Your task to perform on an android device: open app "Chime – Mobile Banking" (install if not already installed) Image 0: 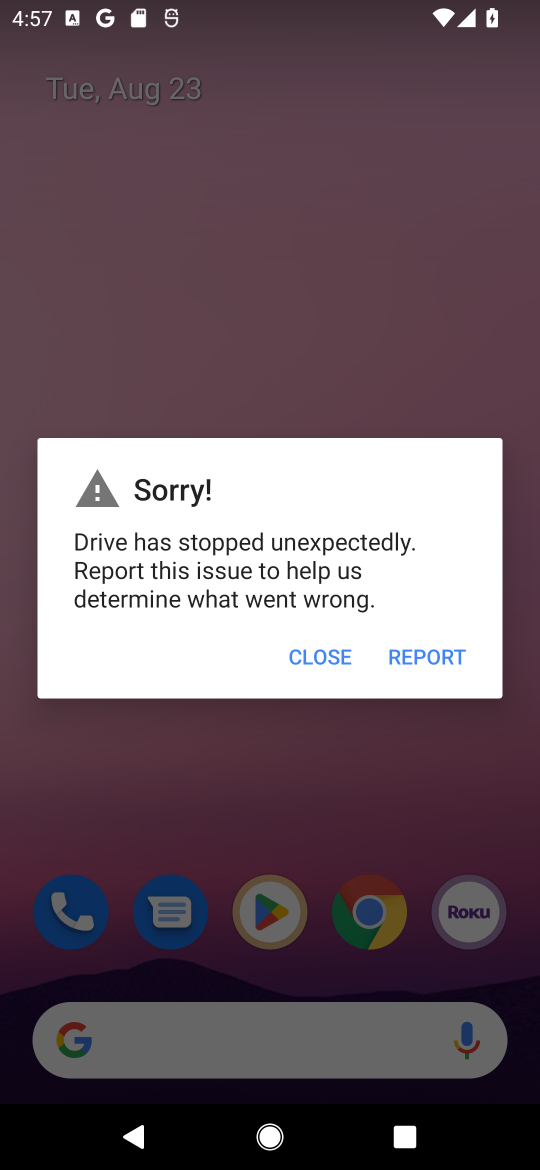
Step 0: press home button
Your task to perform on an android device: open app "Chime – Mobile Banking" (install if not already installed) Image 1: 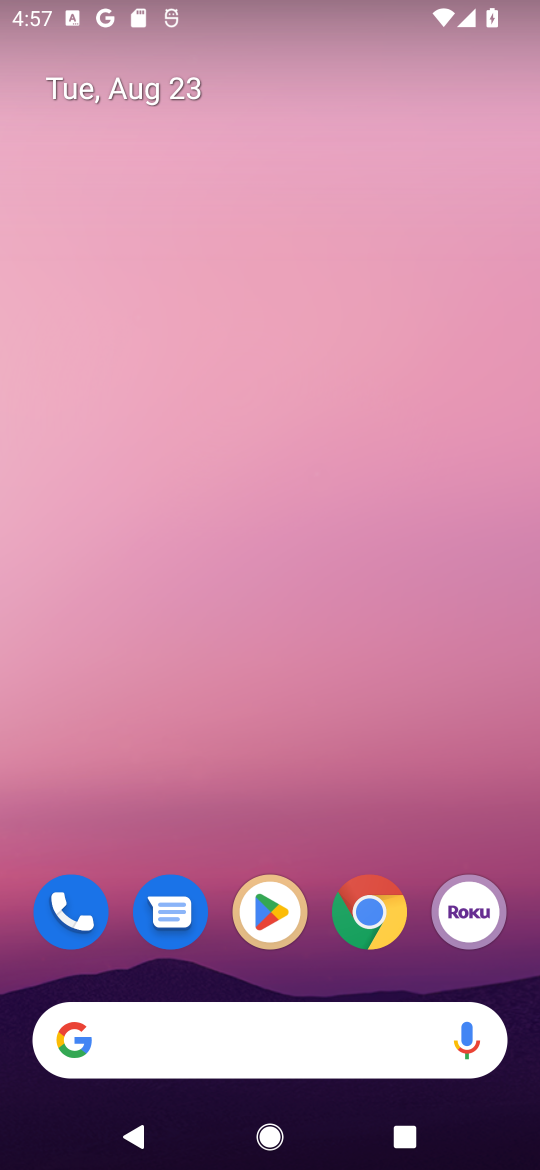
Step 1: drag from (278, 825) to (281, 126)
Your task to perform on an android device: open app "Chime – Mobile Banking" (install if not already installed) Image 2: 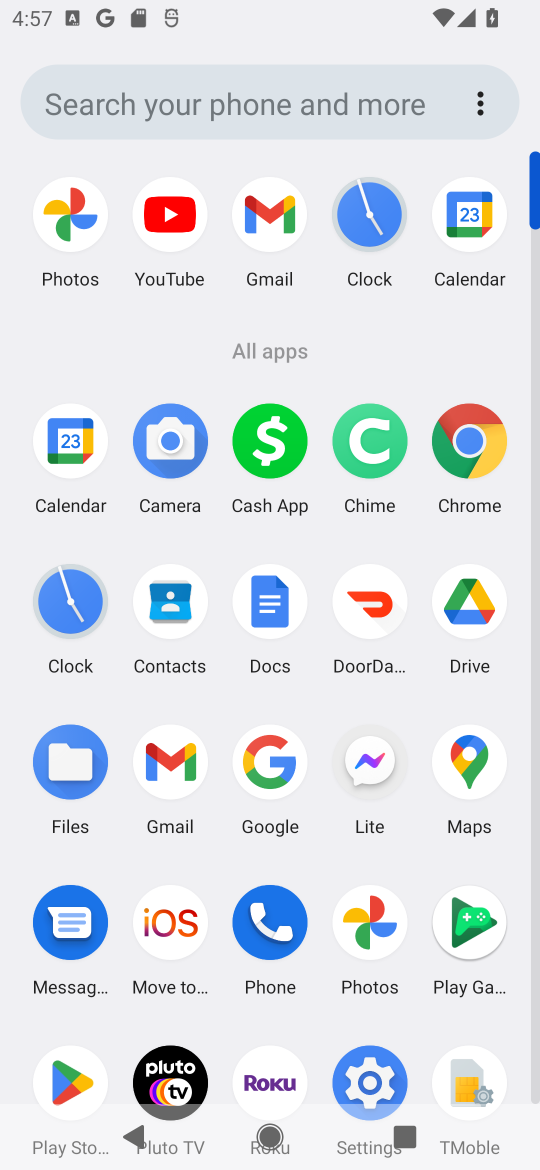
Step 2: click (75, 1071)
Your task to perform on an android device: open app "Chime – Mobile Banking" (install if not already installed) Image 3: 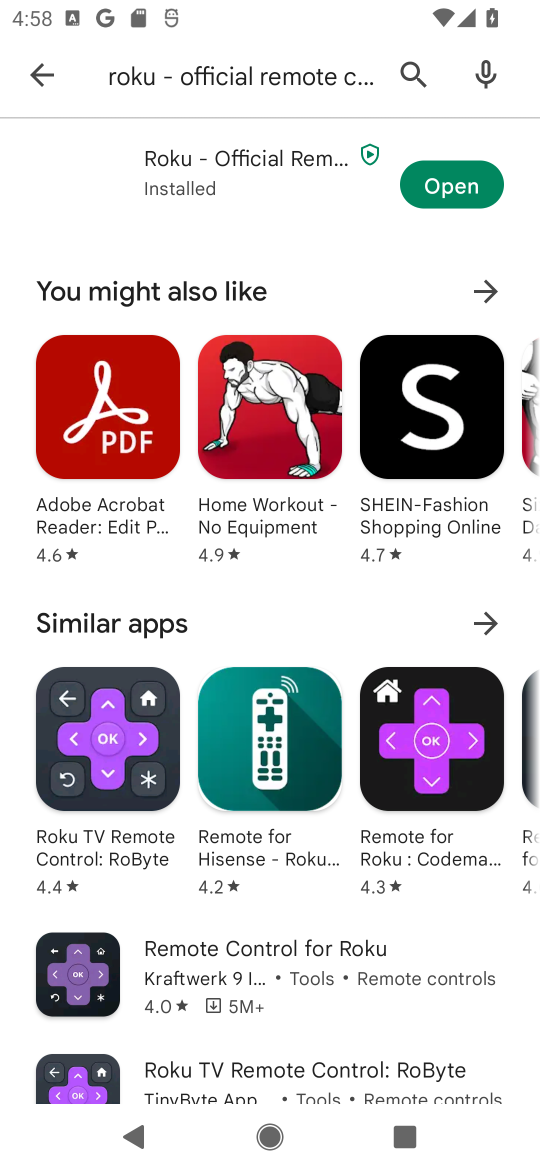
Step 3: click (26, 64)
Your task to perform on an android device: open app "Chime – Mobile Banking" (install if not already installed) Image 4: 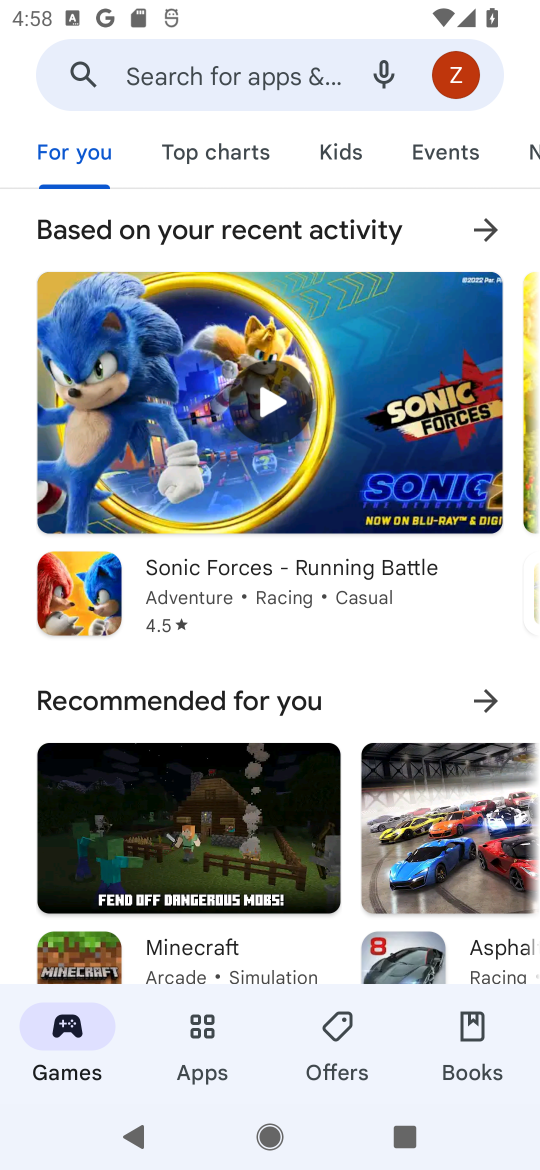
Step 4: click (198, 72)
Your task to perform on an android device: open app "Chime – Mobile Banking" (install if not already installed) Image 5: 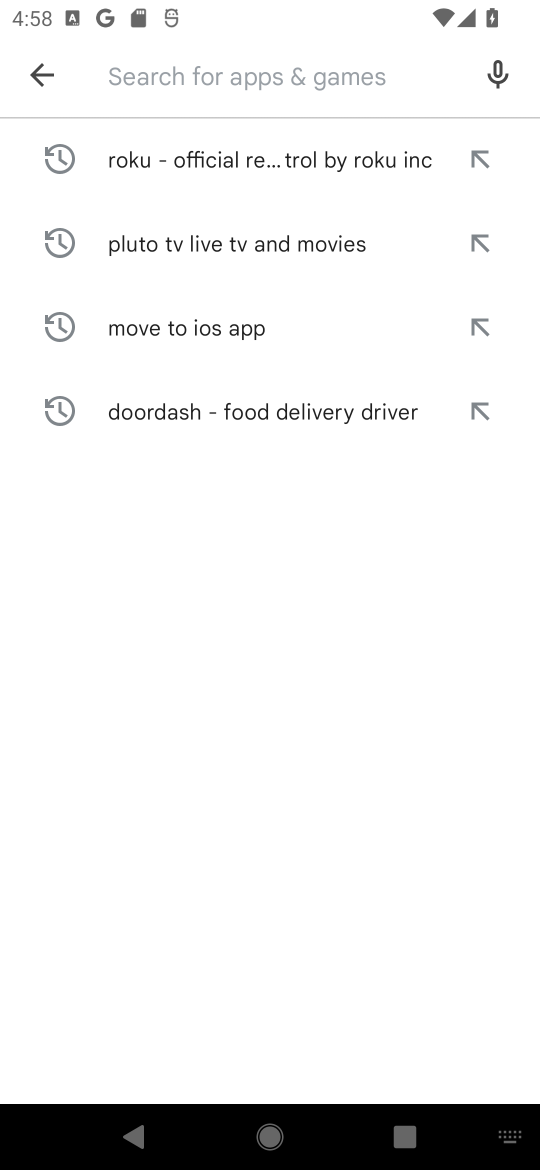
Step 5: type "Chime – Mobile Banking "
Your task to perform on an android device: open app "Chime – Mobile Banking" (install if not already installed) Image 6: 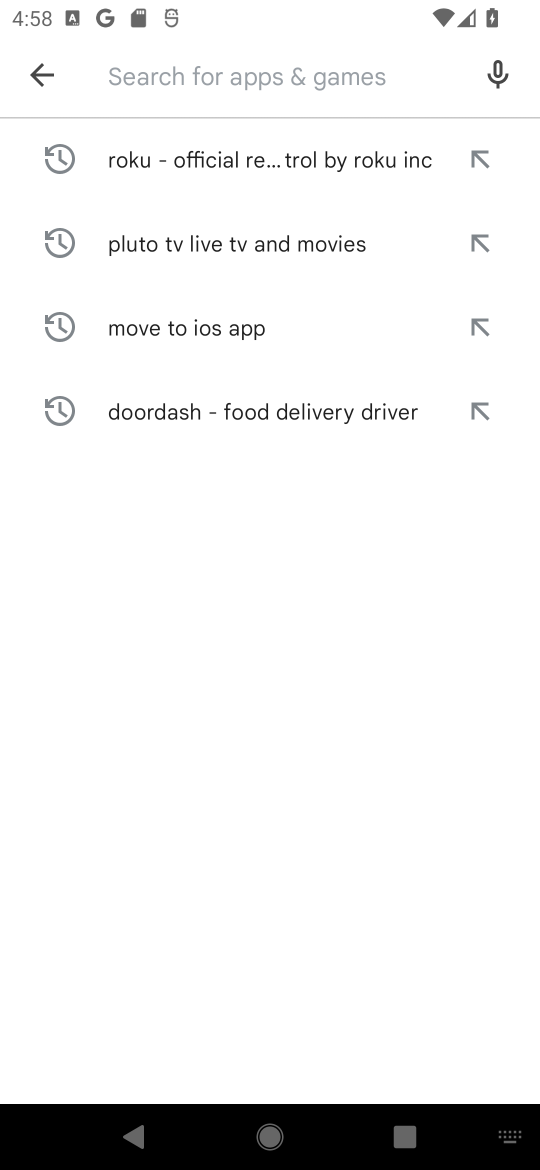
Step 6: click (223, 83)
Your task to perform on an android device: open app "Chime – Mobile Banking" (install if not already installed) Image 7: 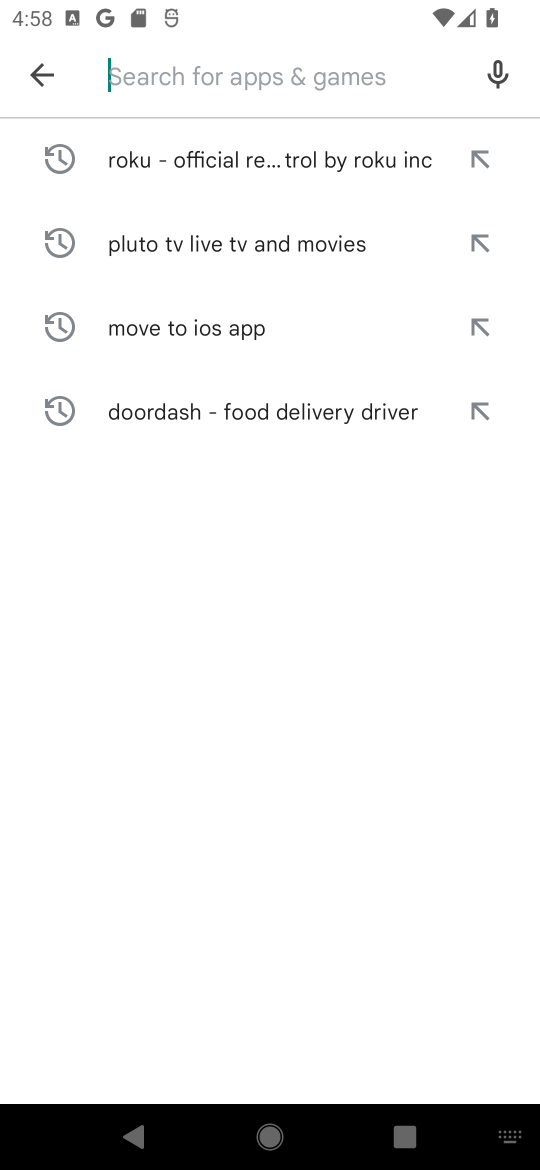
Step 7: type "chime "
Your task to perform on an android device: open app "Chime – Mobile Banking" (install if not already installed) Image 8: 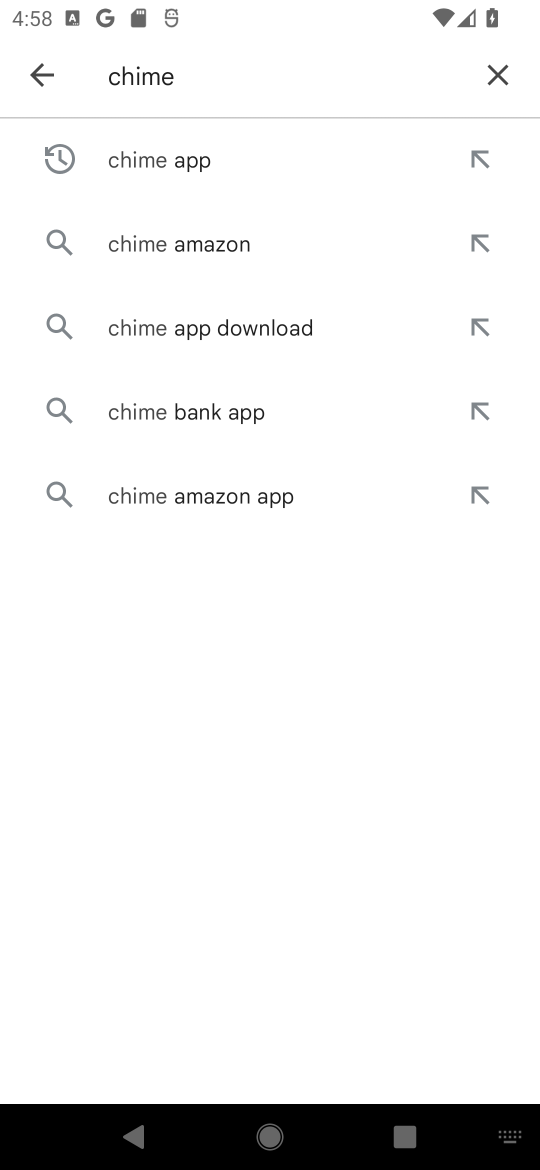
Step 8: click (191, 162)
Your task to perform on an android device: open app "Chime – Mobile Banking" (install if not already installed) Image 9: 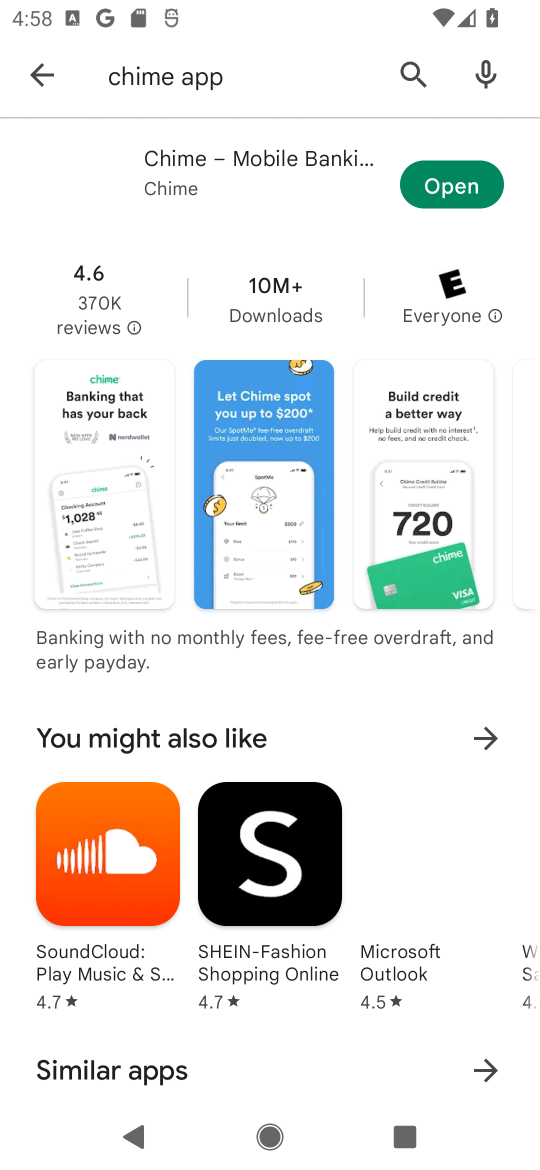
Step 9: click (451, 179)
Your task to perform on an android device: open app "Chime – Mobile Banking" (install if not already installed) Image 10: 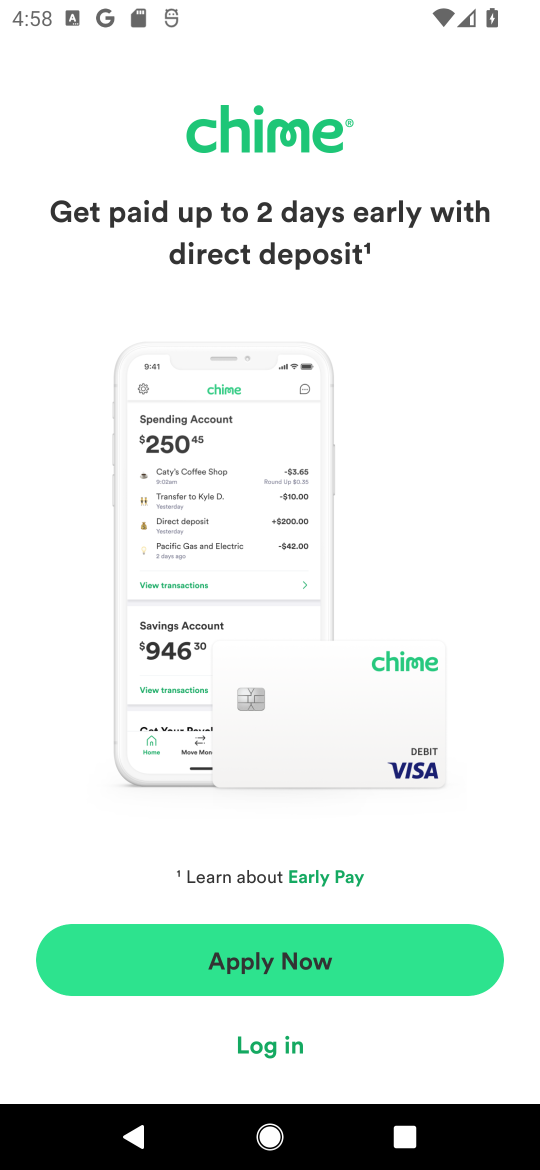
Step 10: task complete